Your task to perform on an android device: Search for usb-c on ebay, select the first entry, add it to the cart, then select checkout. Image 0: 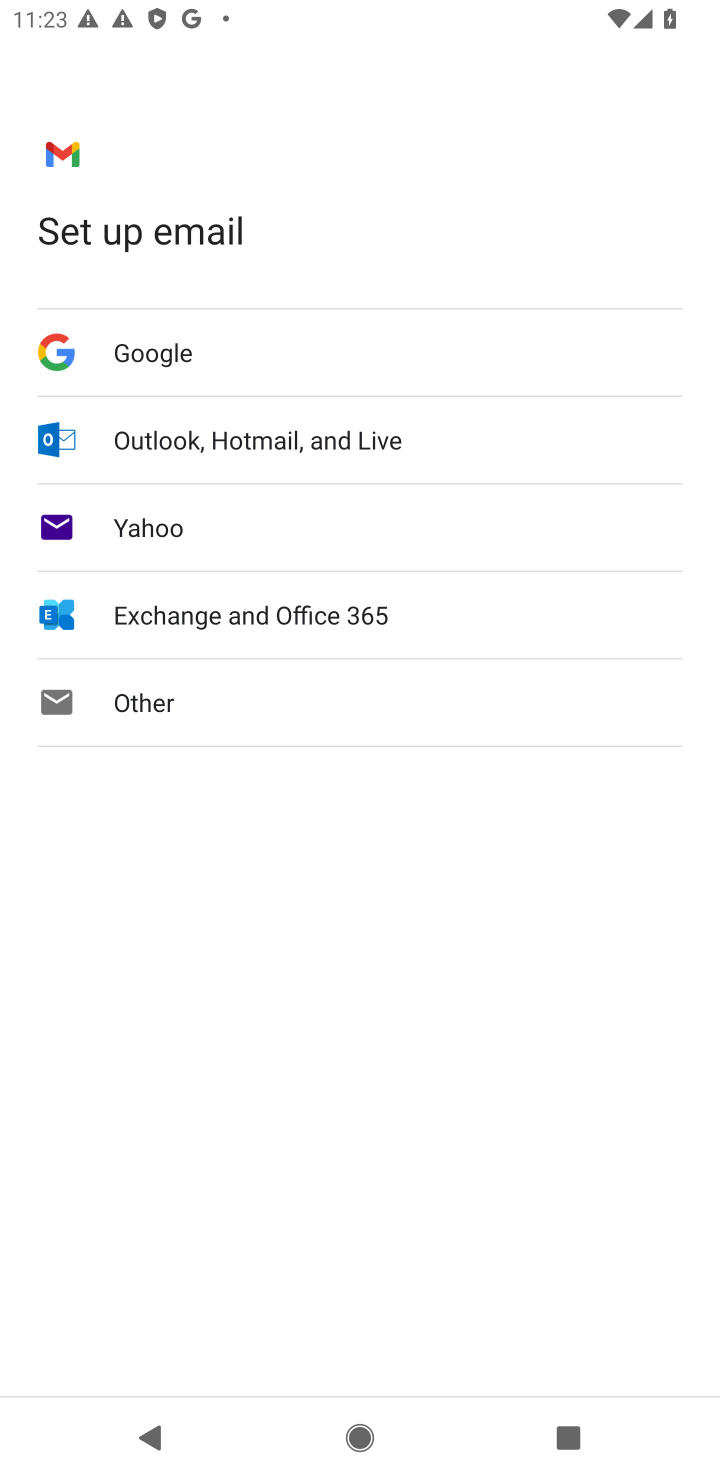
Step 0: press home button
Your task to perform on an android device: Search for usb-c on ebay, select the first entry, add it to the cart, then select checkout. Image 1: 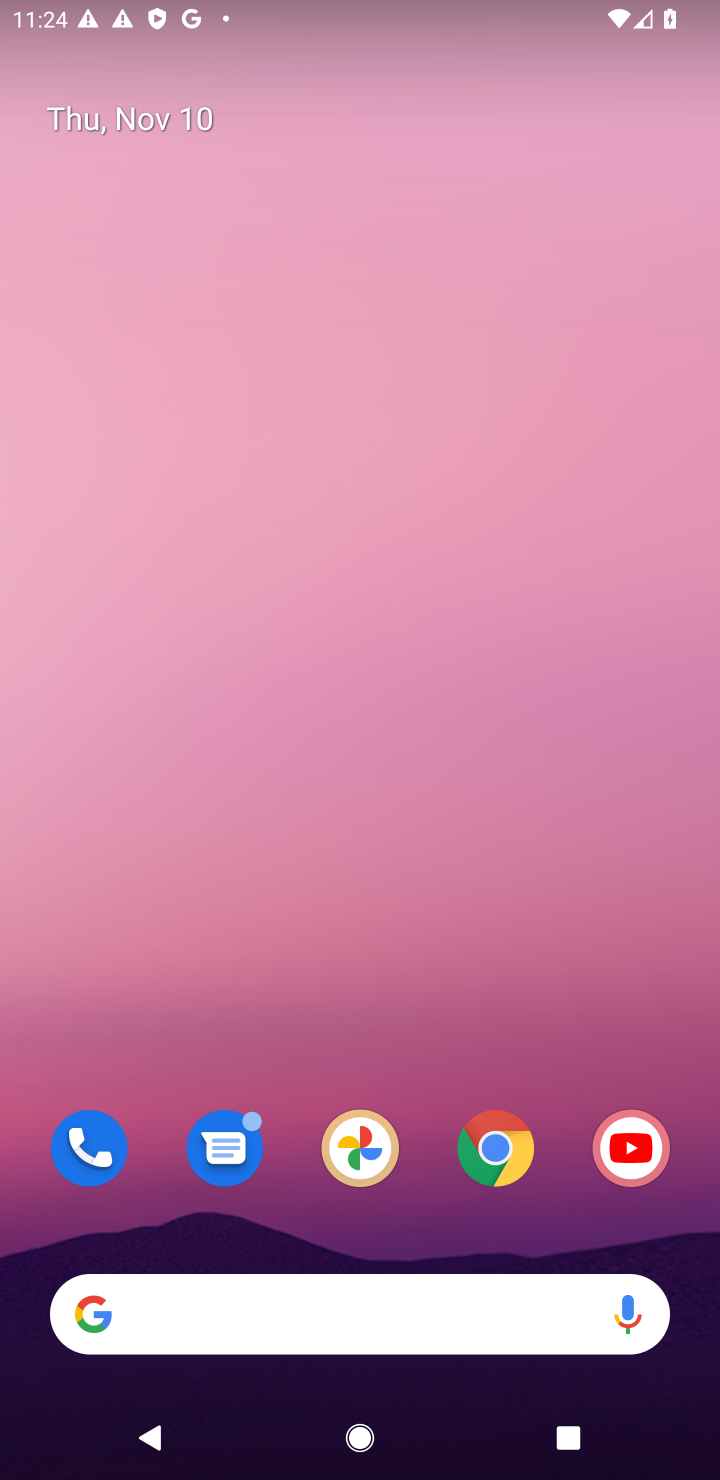
Step 1: click (510, 1148)
Your task to perform on an android device: Search for usb-c on ebay, select the first entry, add it to the cart, then select checkout. Image 2: 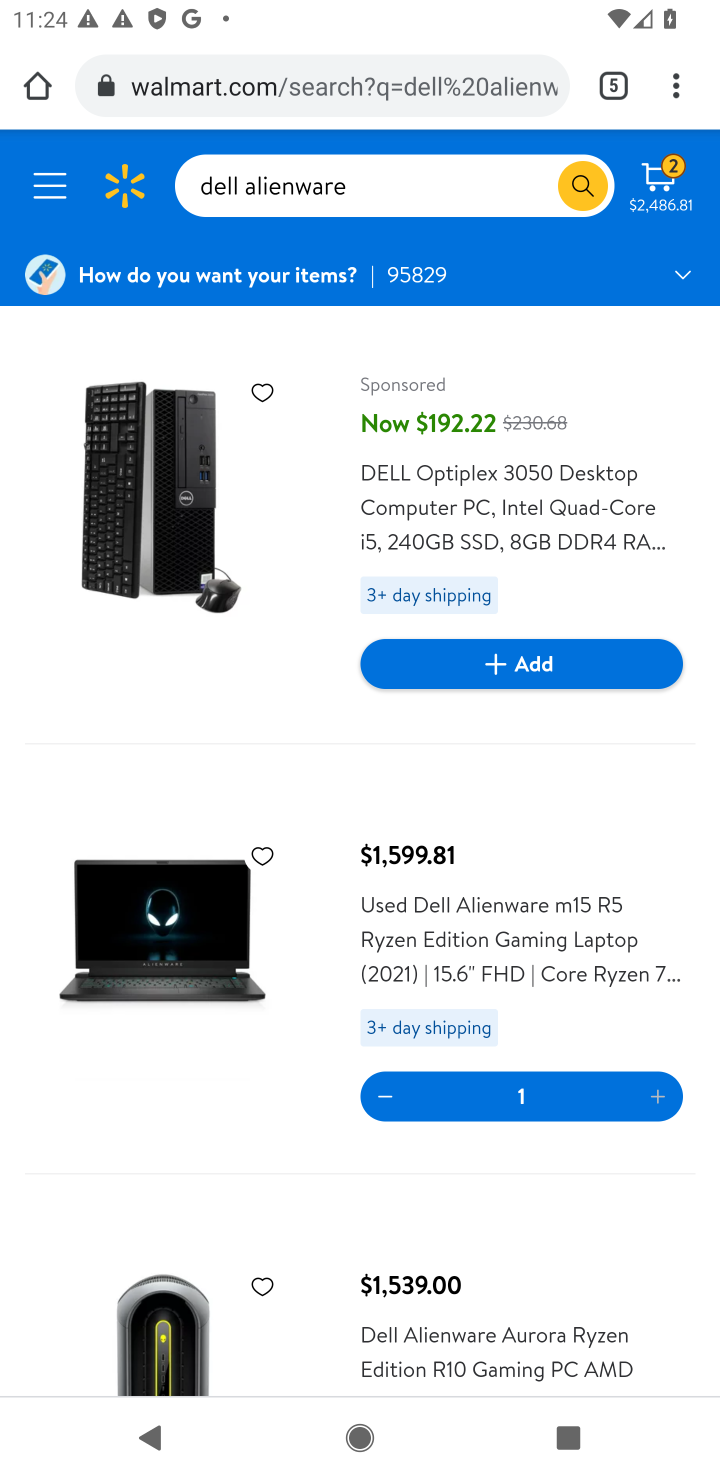
Step 2: click (614, 93)
Your task to perform on an android device: Search for usb-c on ebay, select the first entry, add it to the cart, then select checkout. Image 3: 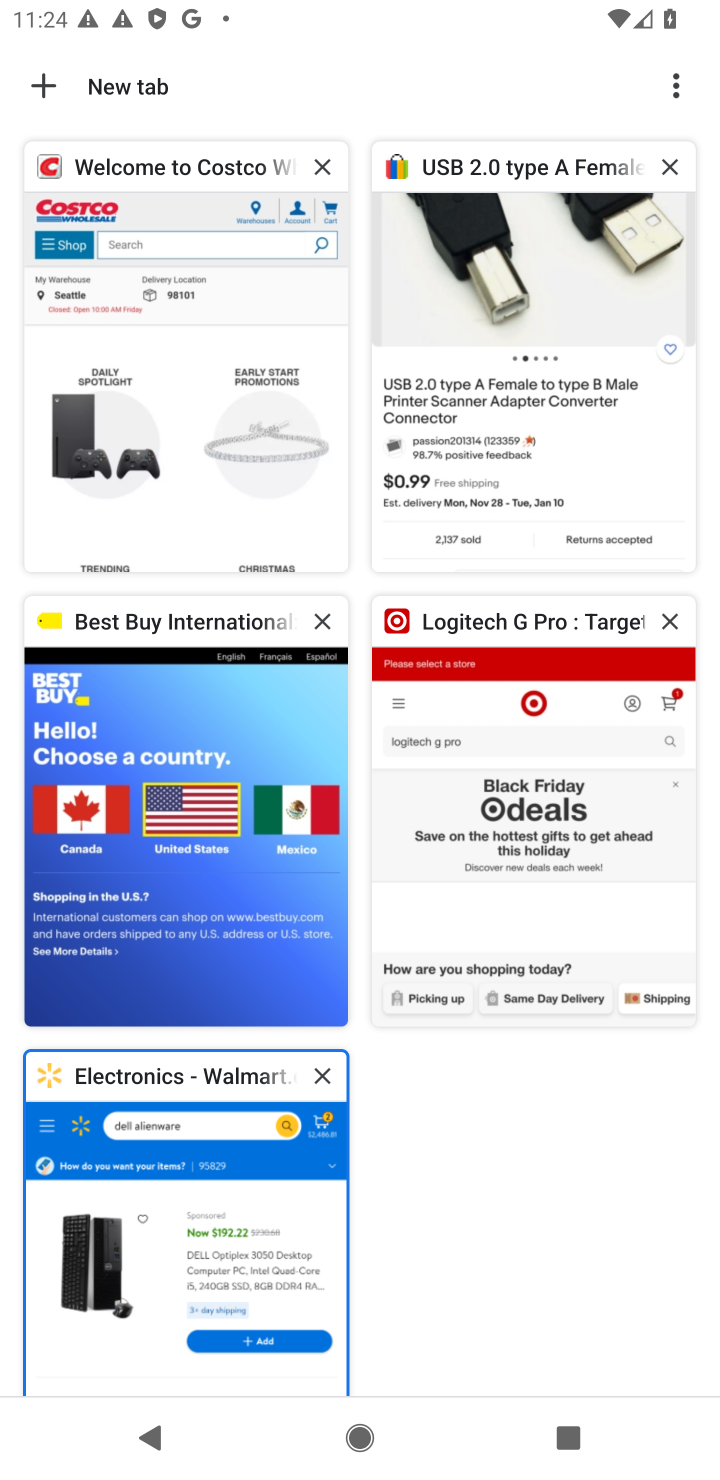
Step 3: click (612, 85)
Your task to perform on an android device: Search for usb-c on ebay, select the first entry, add it to the cart, then select checkout. Image 4: 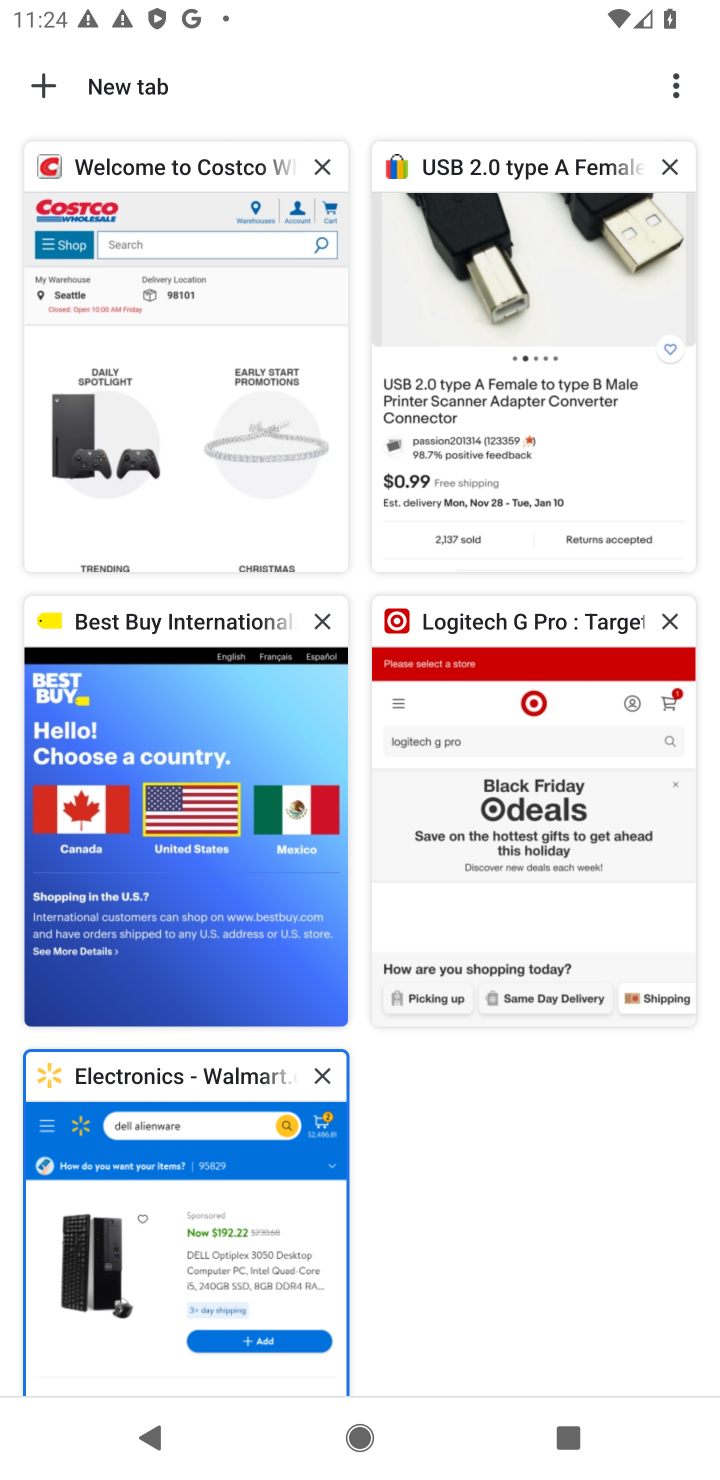
Step 4: click (510, 352)
Your task to perform on an android device: Search for usb-c on ebay, select the first entry, add it to the cart, then select checkout. Image 5: 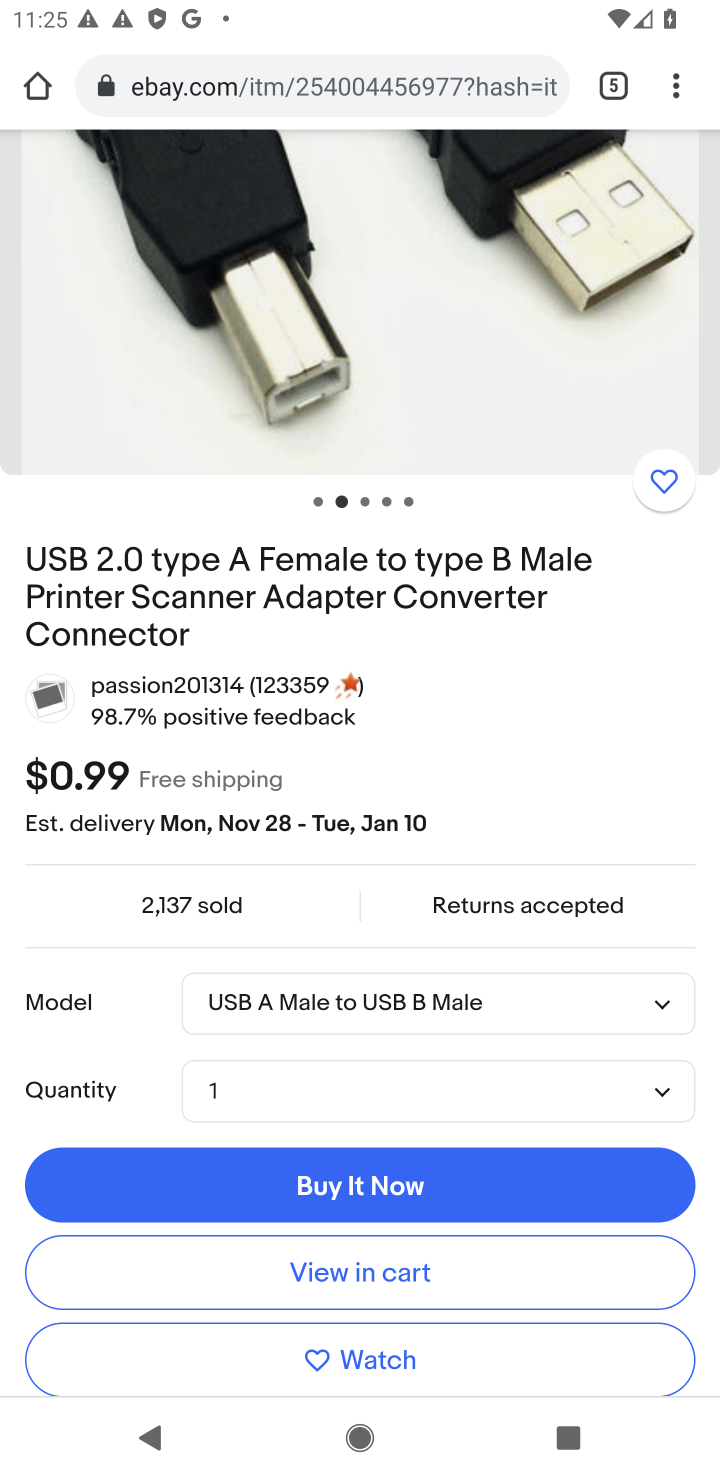
Step 5: drag from (493, 471) to (244, 1360)
Your task to perform on an android device: Search for usb-c on ebay, select the first entry, add it to the cart, then select checkout. Image 6: 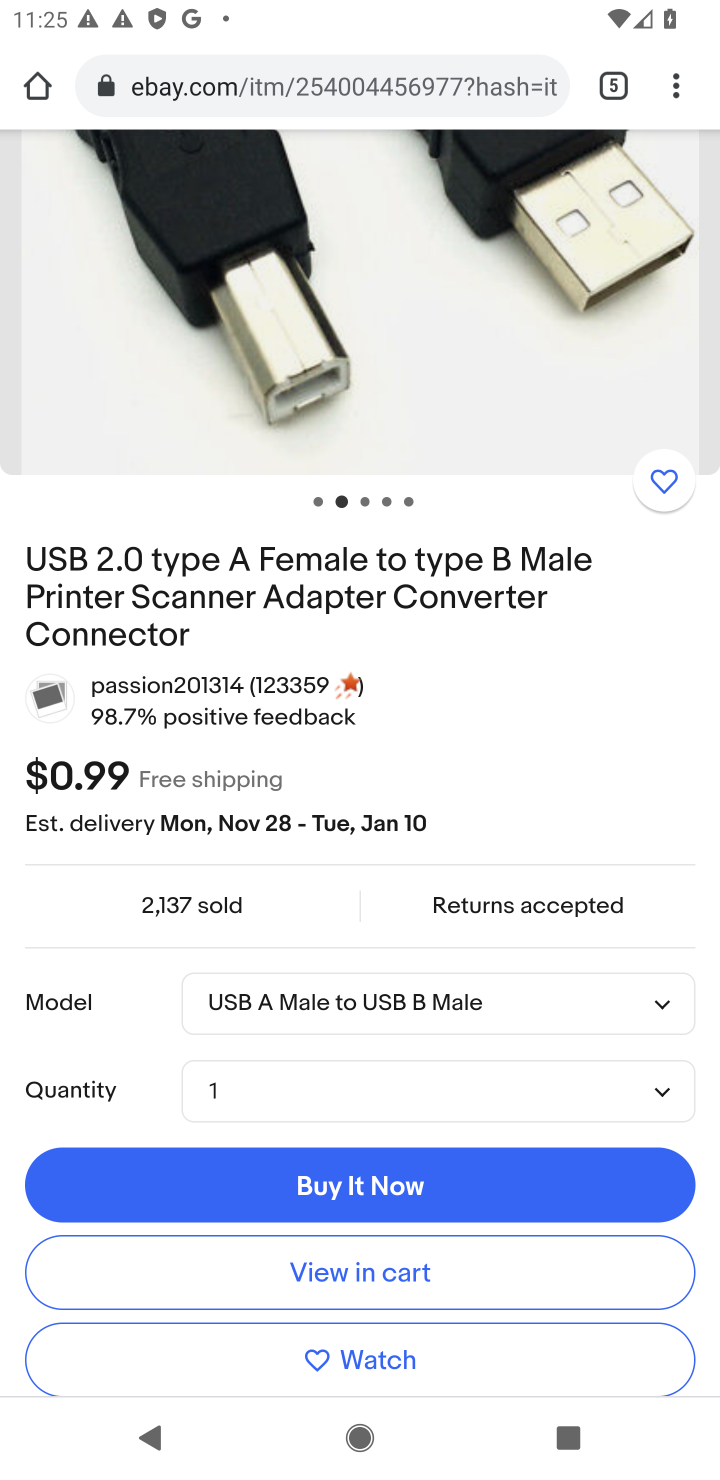
Step 6: drag from (515, 362) to (367, 1243)
Your task to perform on an android device: Search for usb-c on ebay, select the first entry, add it to the cart, then select checkout. Image 7: 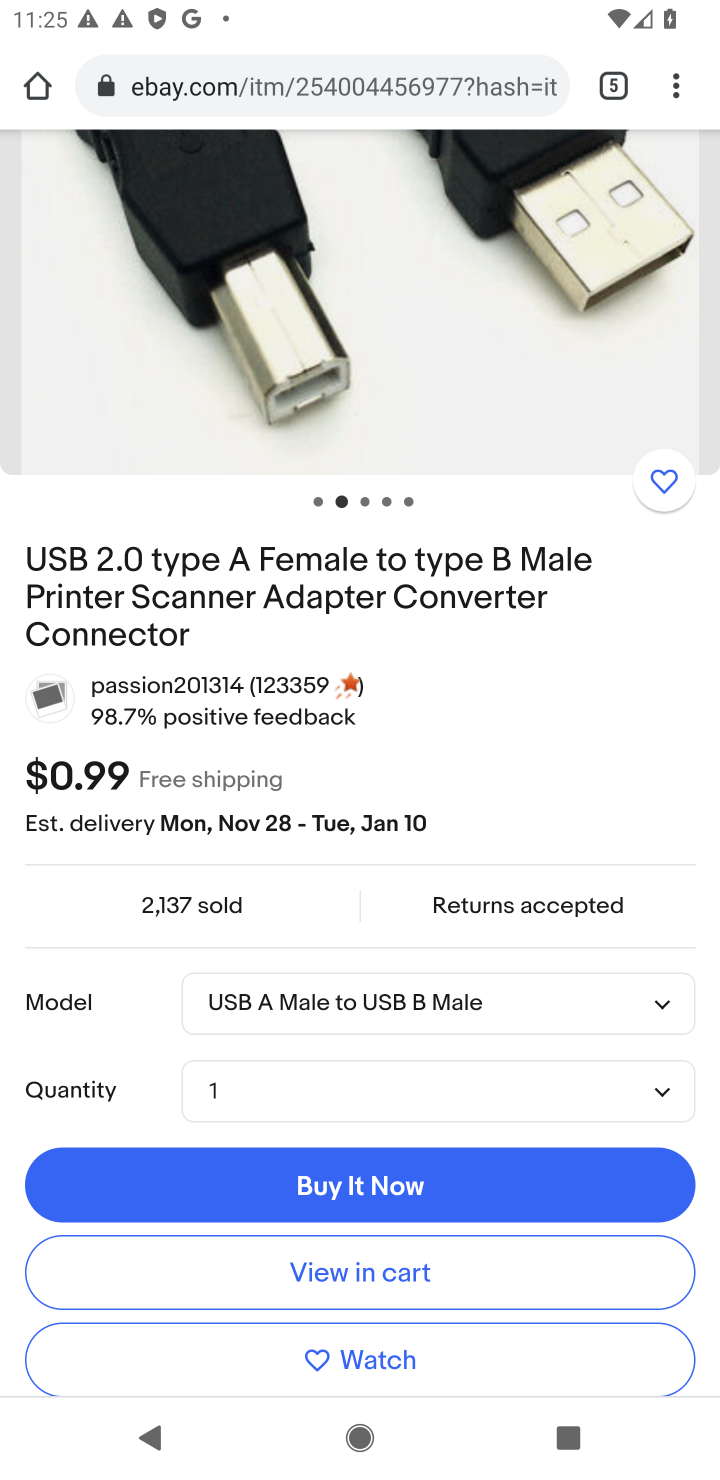
Step 7: drag from (574, 398) to (584, 1231)
Your task to perform on an android device: Search for usb-c on ebay, select the first entry, add it to the cart, then select checkout. Image 8: 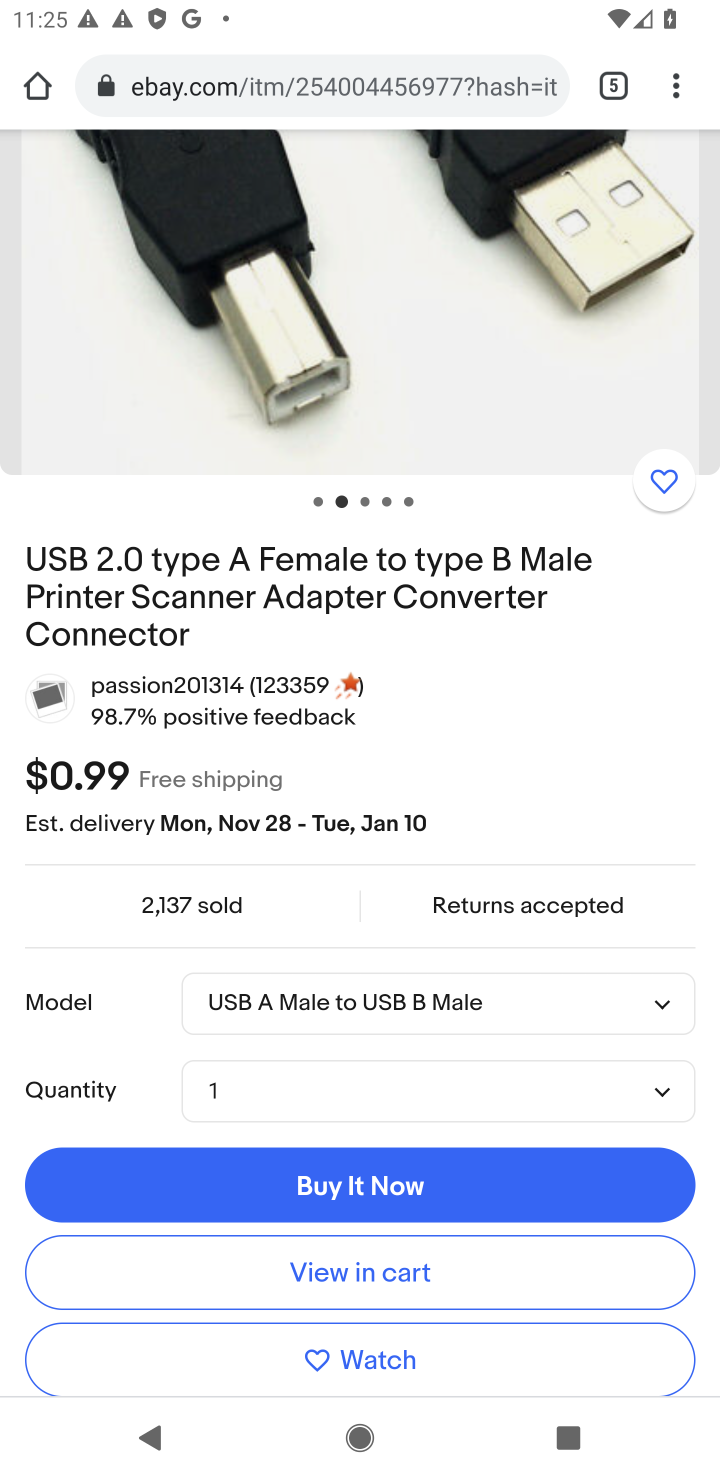
Step 8: drag from (386, 1367) to (446, 1456)
Your task to perform on an android device: Search for usb-c on ebay, select the first entry, add it to the cart, then select checkout. Image 9: 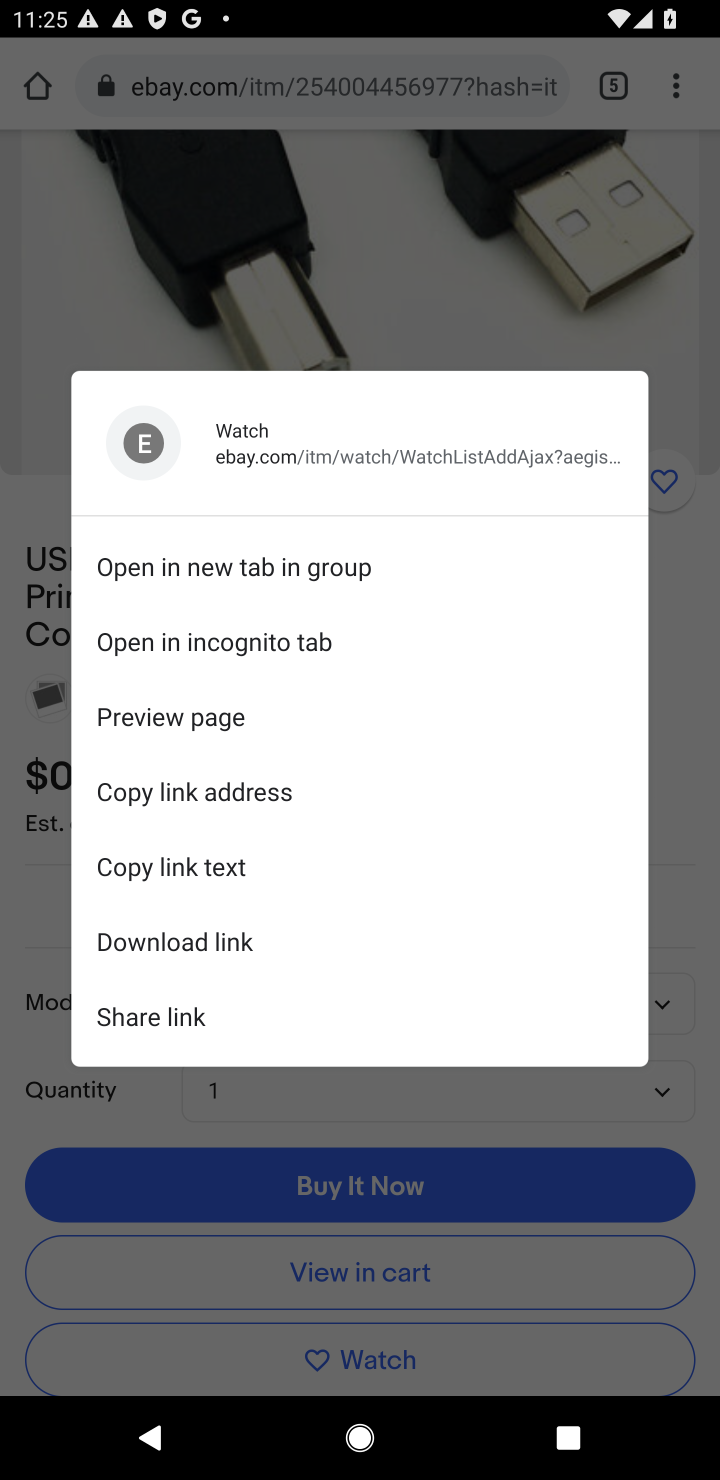
Step 9: click (673, 610)
Your task to perform on an android device: Search for usb-c on ebay, select the first entry, add it to the cart, then select checkout. Image 10: 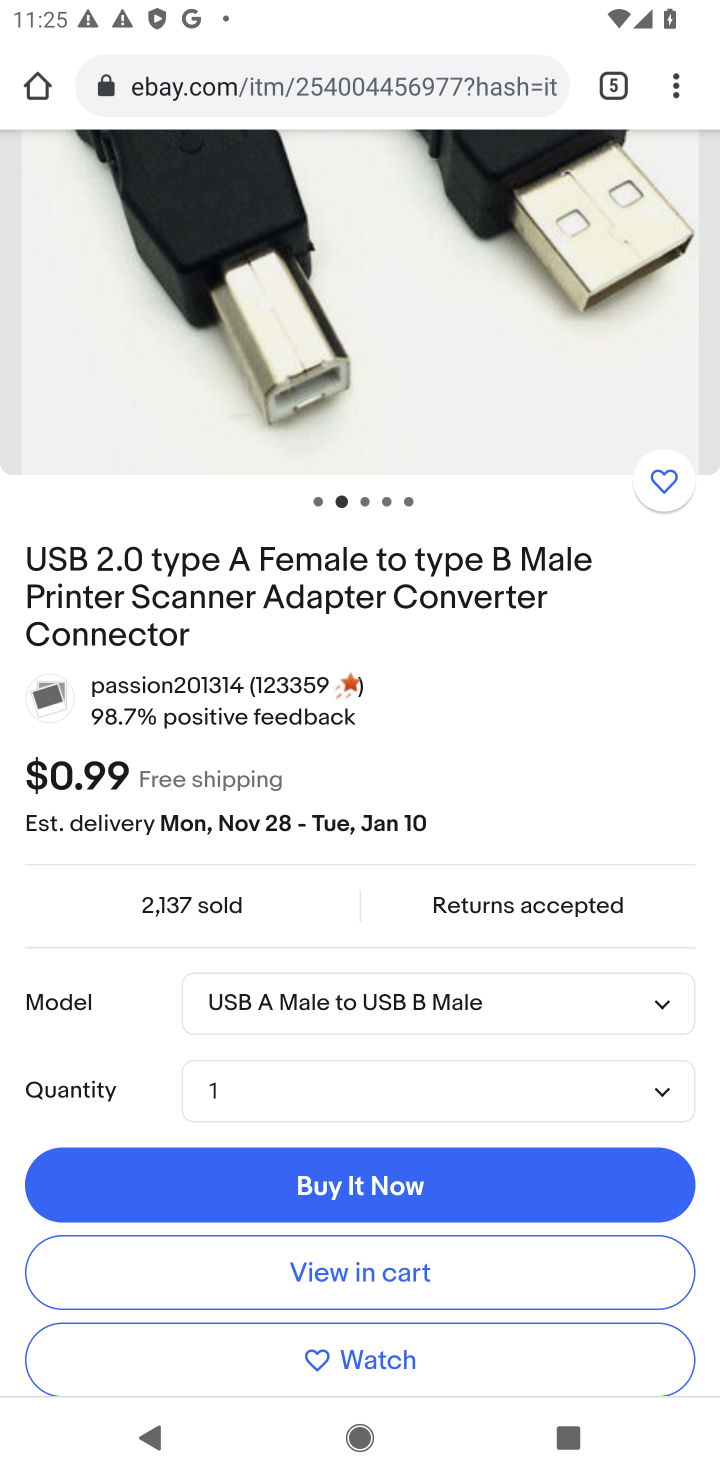
Step 10: drag from (550, 307) to (424, 1390)
Your task to perform on an android device: Search for usb-c on ebay, select the first entry, add it to the cart, then select checkout. Image 11: 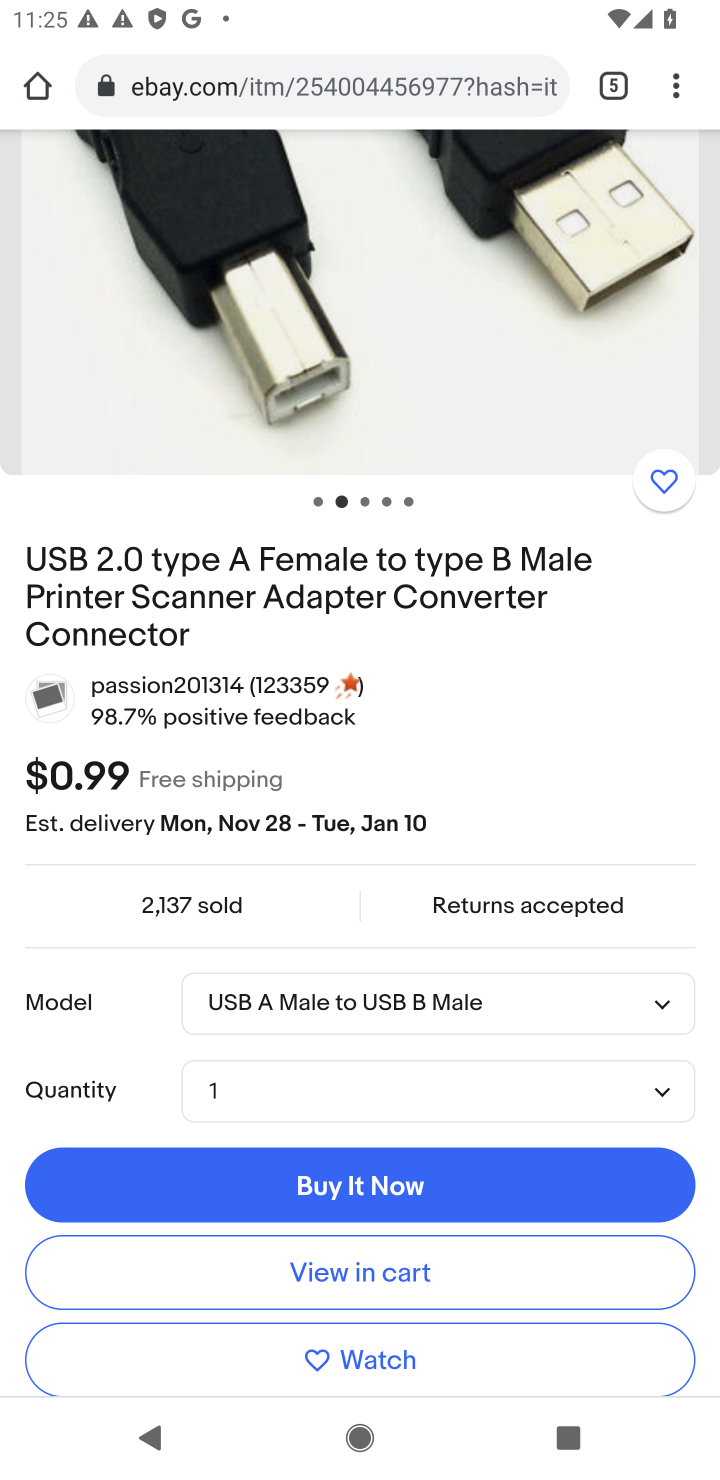
Step 11: drag from (543, 486) to (518, 985)
Your task to perform on an android device: Search for usb-c on ebay, select the first entry, add it to the cart, then select checkout. Image 12: 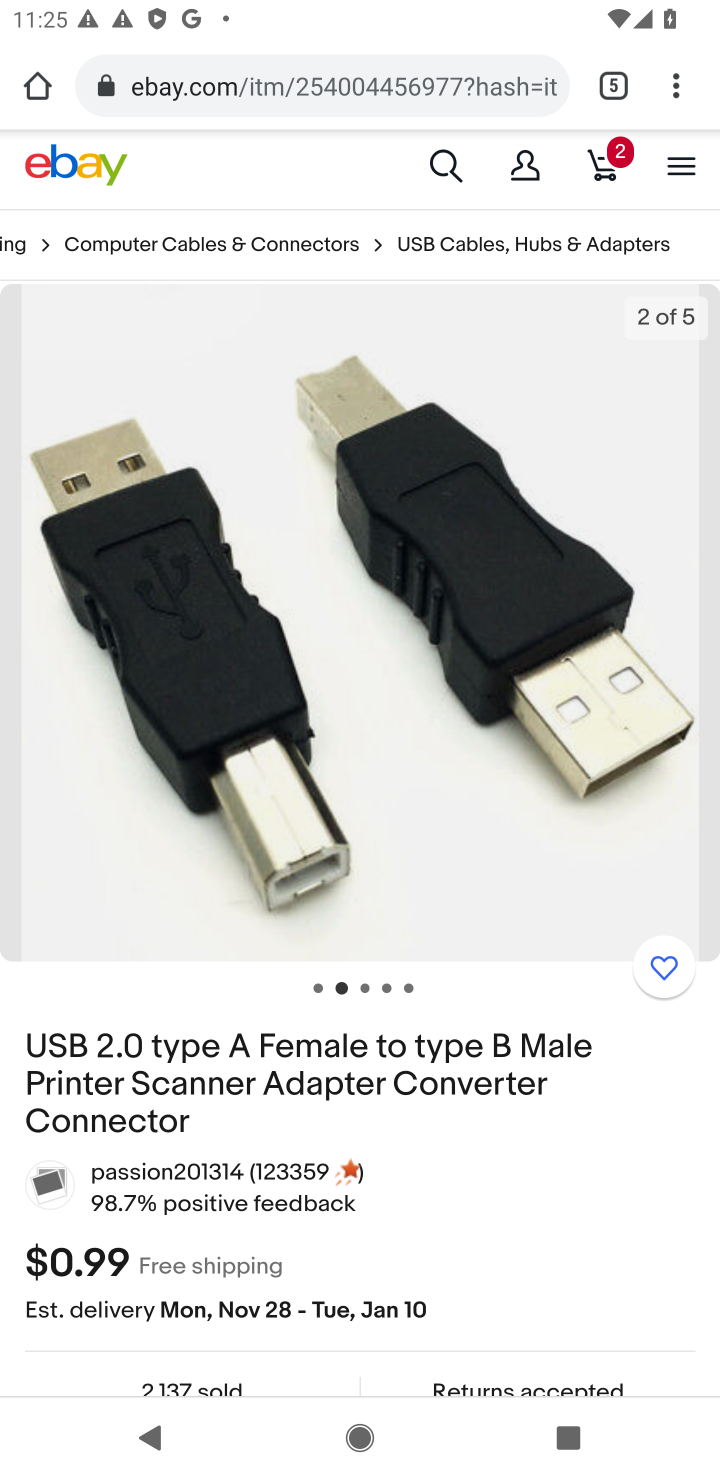
Step 12: click (444, 162)
Your task to perform on an android device: Search for usb-c on ebay, select the first entry, add it to the cart, then select checkout. Image 13: 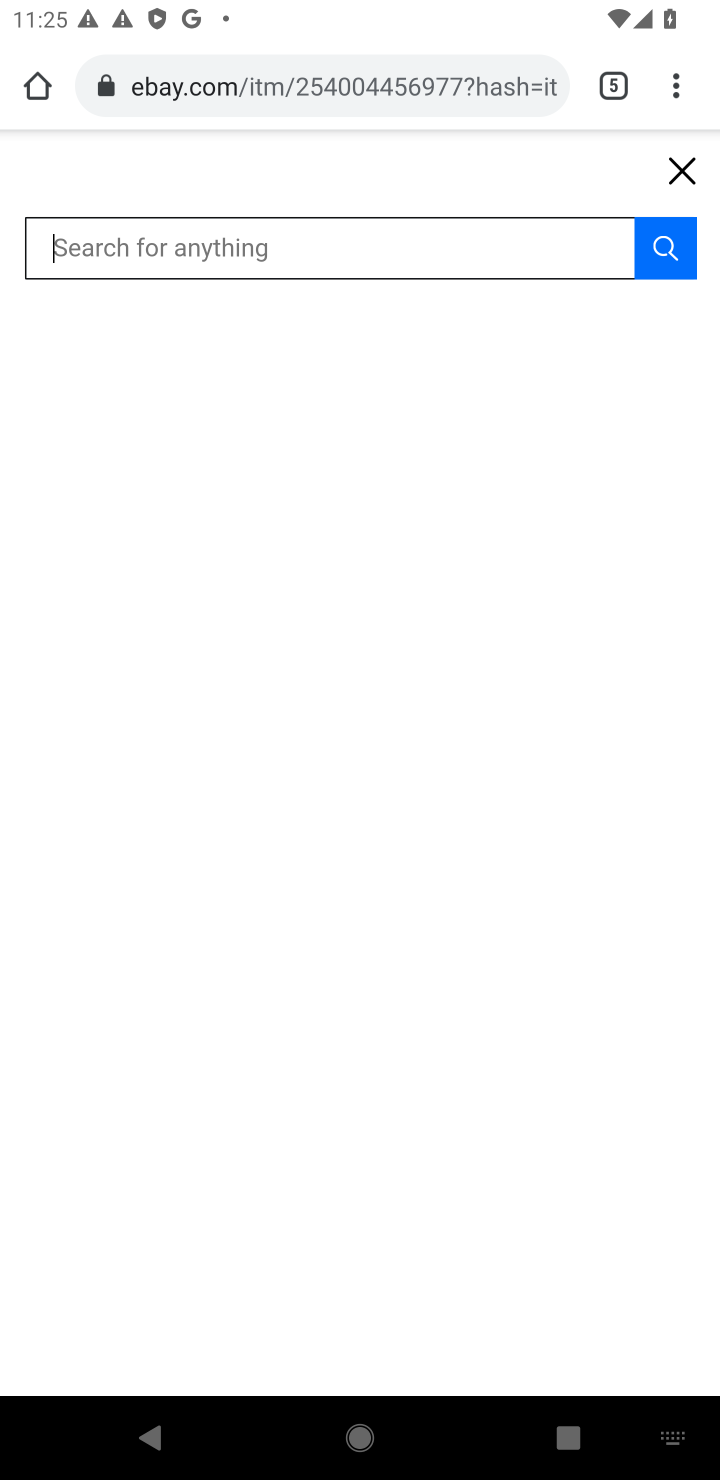
Step 13: type "usb-c"
Your task to perform on an android device: Search for usb-c on ebay, select the first entry, add it to the cart, then select checkout. Image 14: 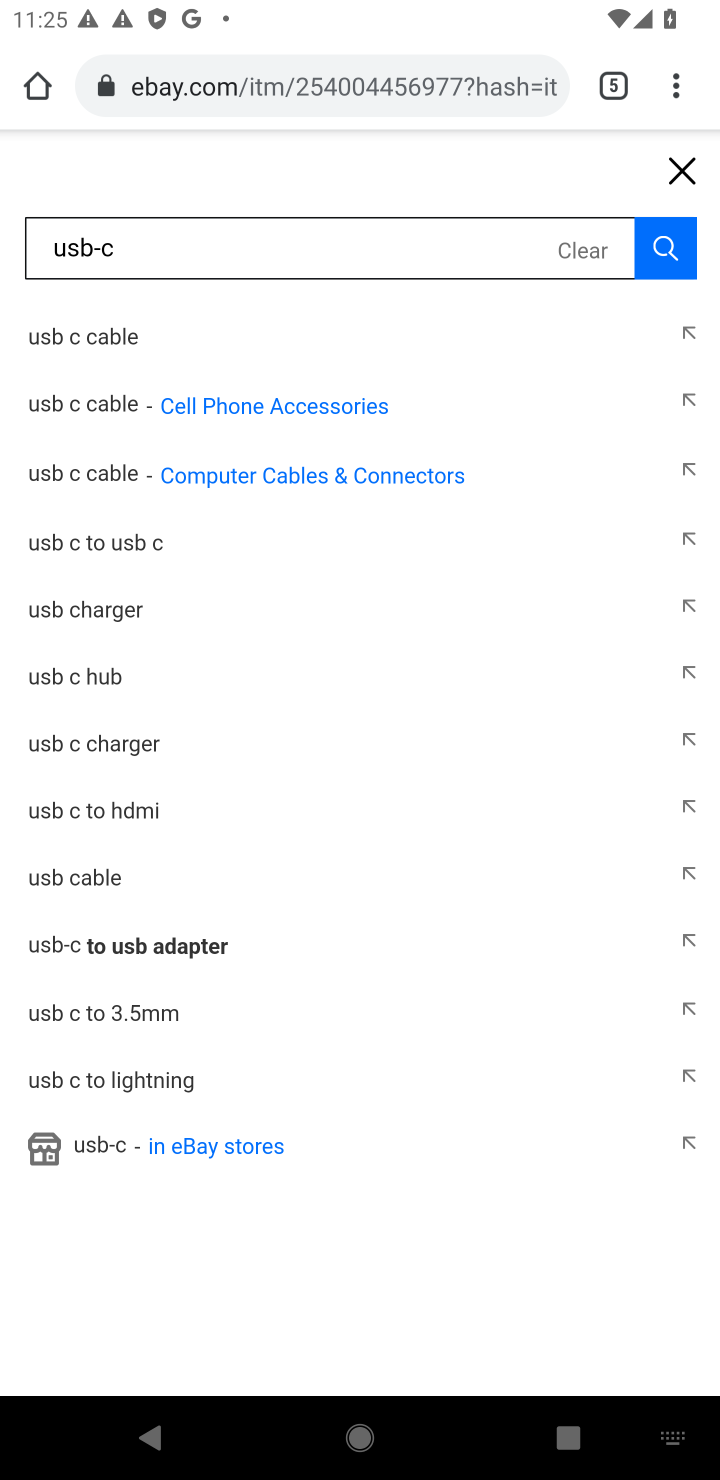
Step 14: click (98, 404)
Your task to perform on an android device: Search for usb-c on ebay, select the first entry, add it to the cart, then select checkout. Image 15: 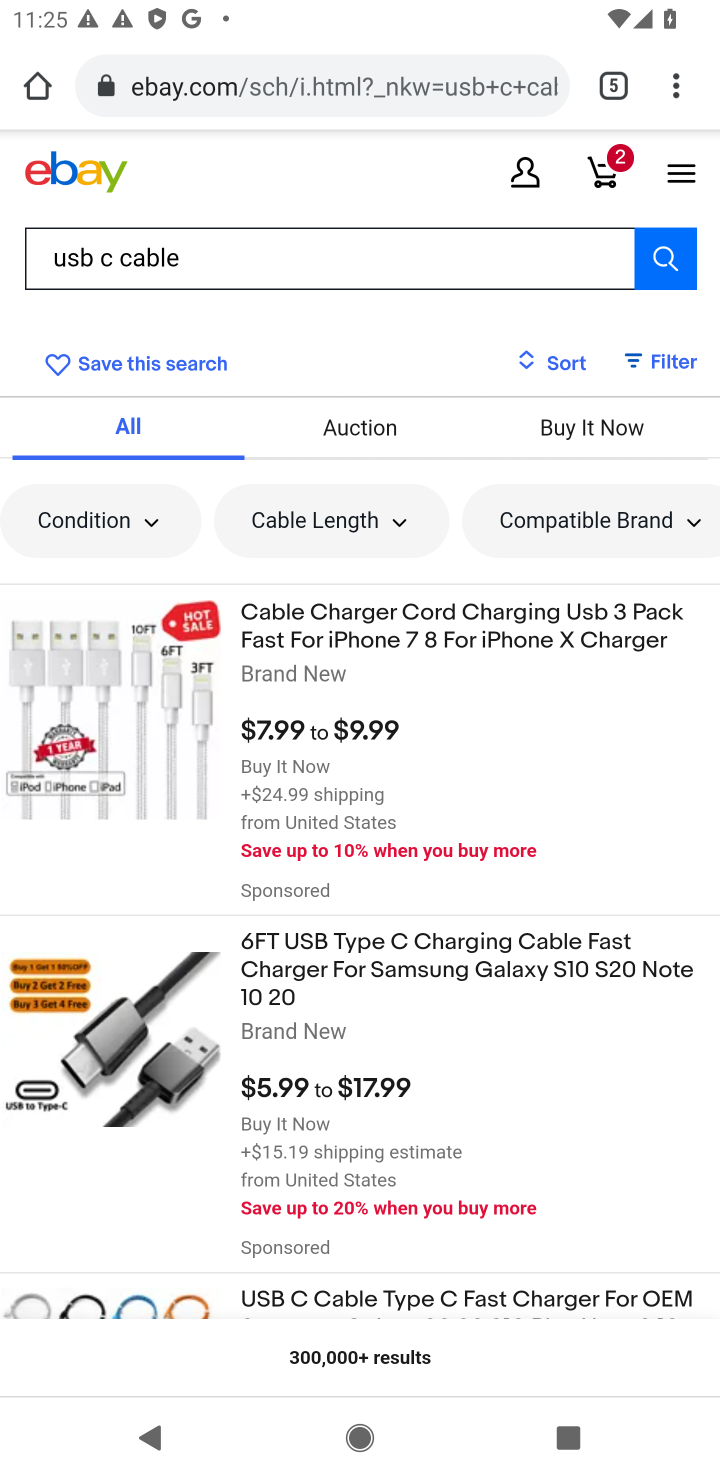
Step 15: click (325, 964)
Your task to perform on an android device: Search for usb-c on ebay, select the first entry, add it to the cart, then select checkout. Image 16: 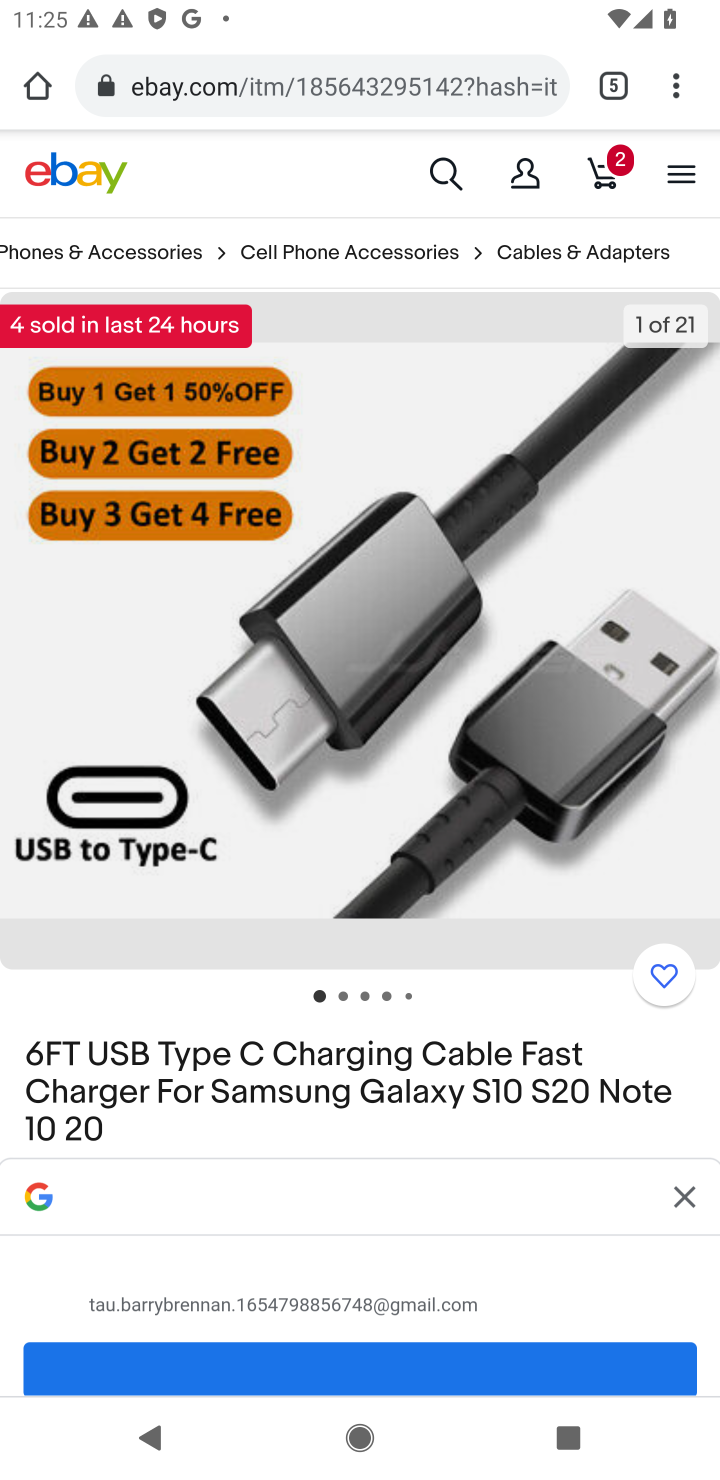
Step 16: drag from (497, 1162) to (456, 163)
Your task to perform on an android device: Search for usb-c on ebay, select the first entry, add it to the cart, then select checkout. Image 17: 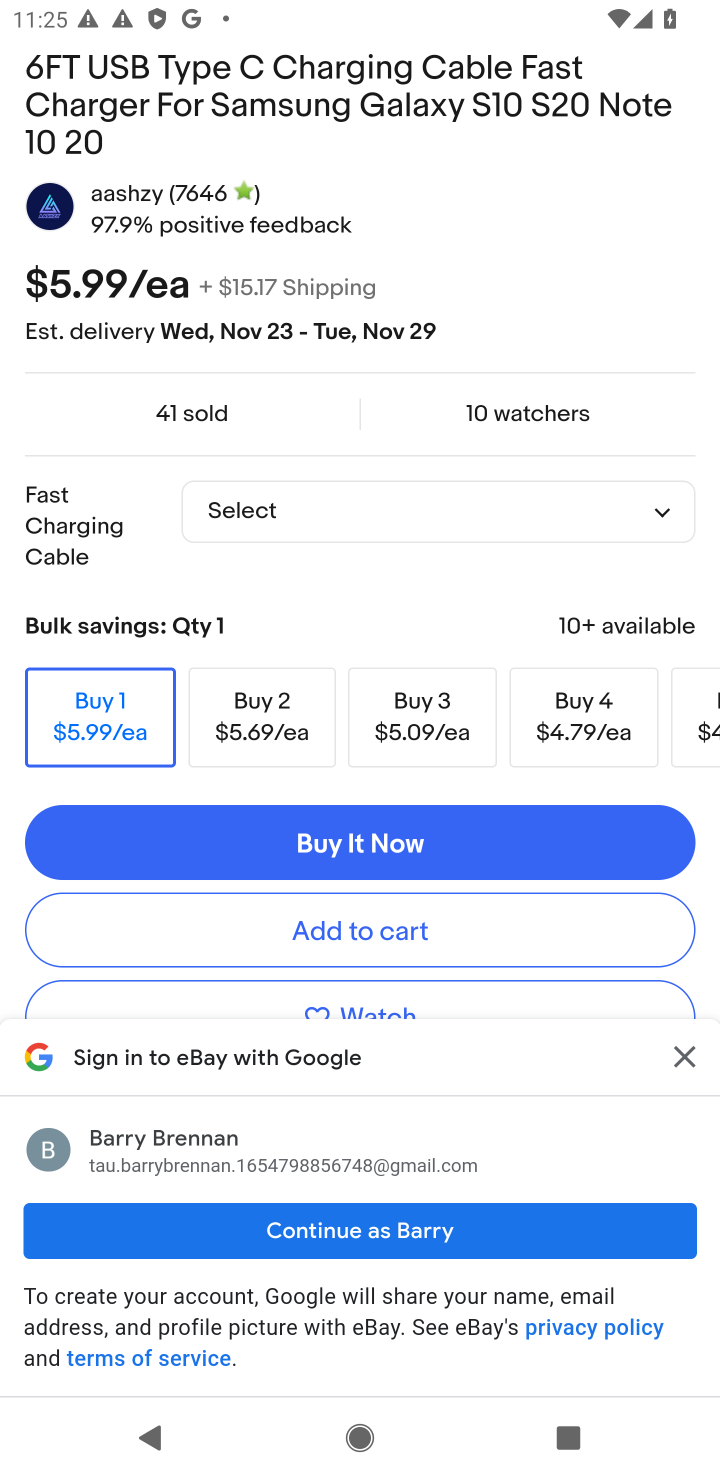
Step 17: click (395, 1249)
Your task to perform on an android device: Search for usb-c on ebay, select the first entry, add it to the cart, then select checkout. Image 18: 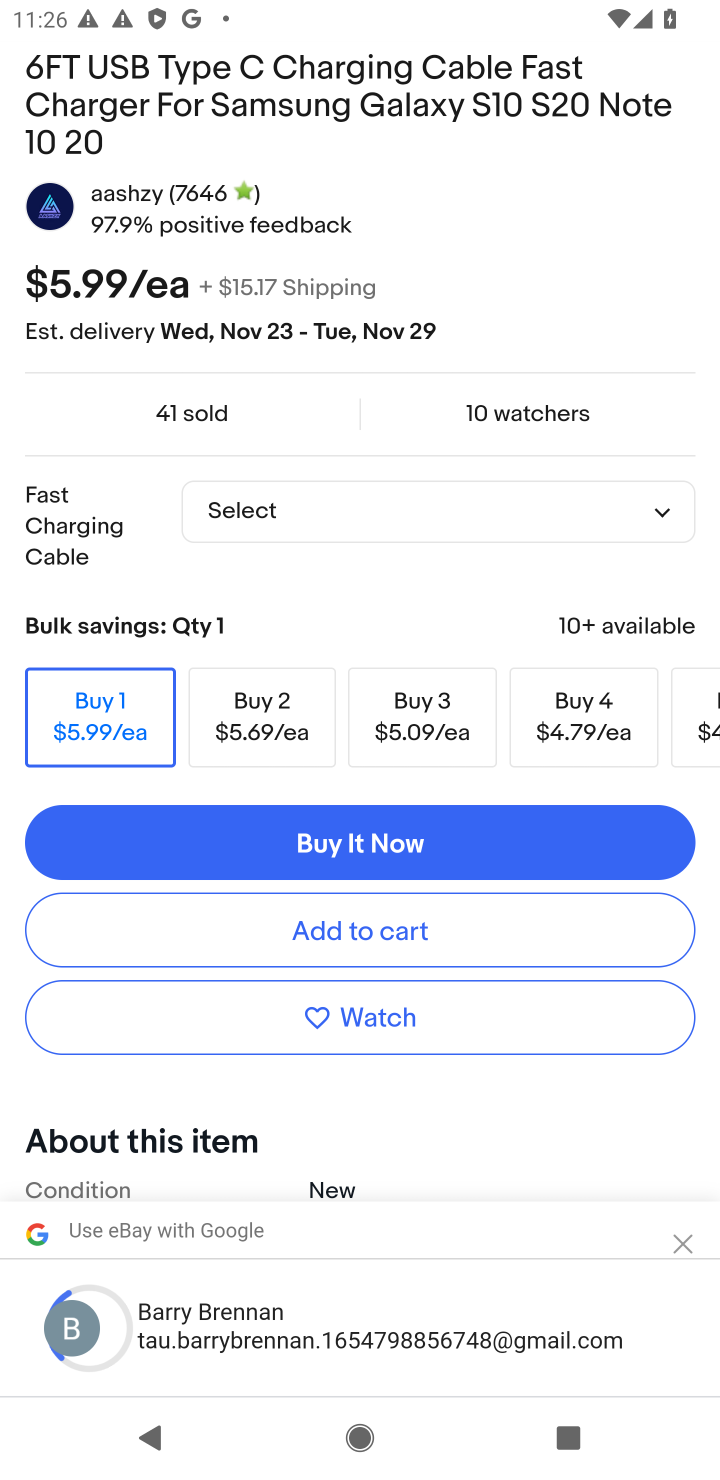
Step 18: click (399, 918)
Your task to perform on an android device: Search for usb-c on ebay, select the first entry, add it to the cart, then select checkout. Image 19: 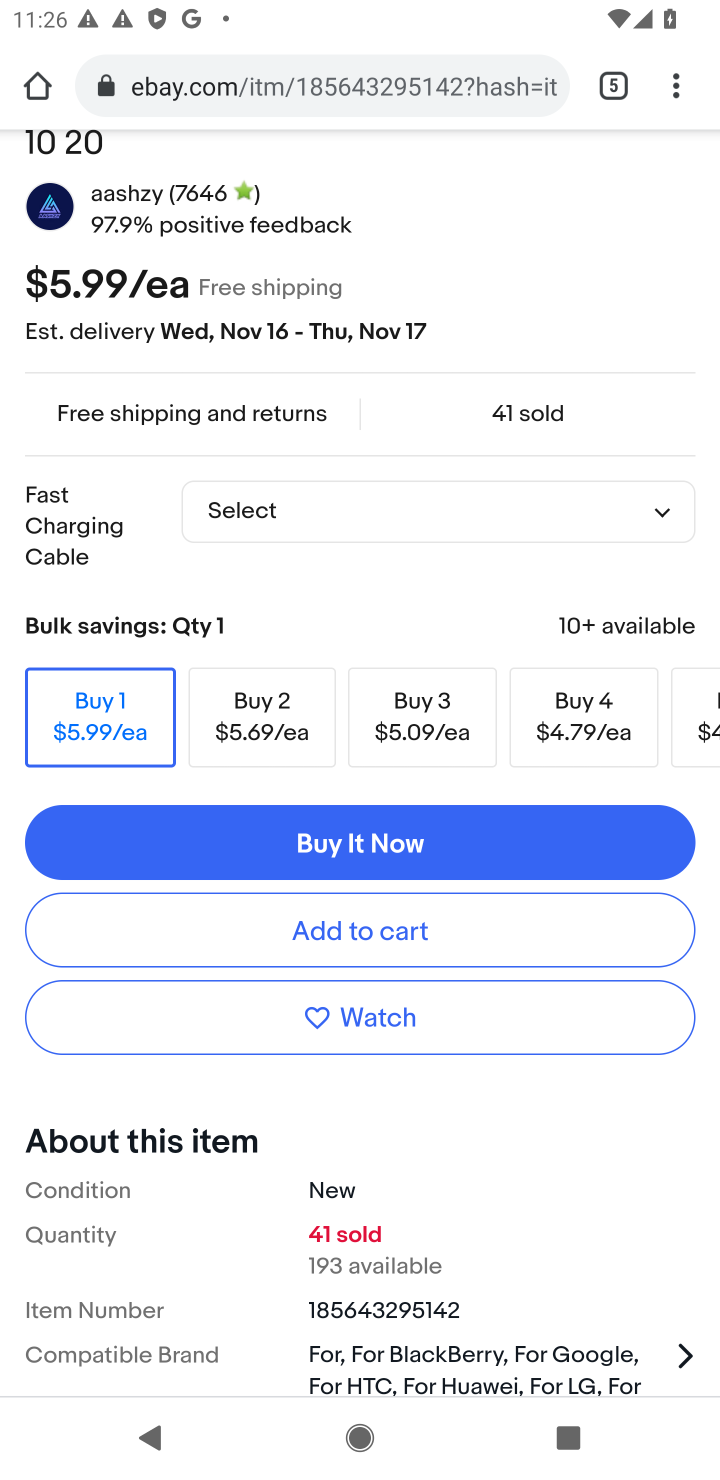
Step 19: click (379, 935)
Your task to perform on an android device: Search for usb-c on ebay, select the first entry, add it to the cart, then select checkout. Image 20: 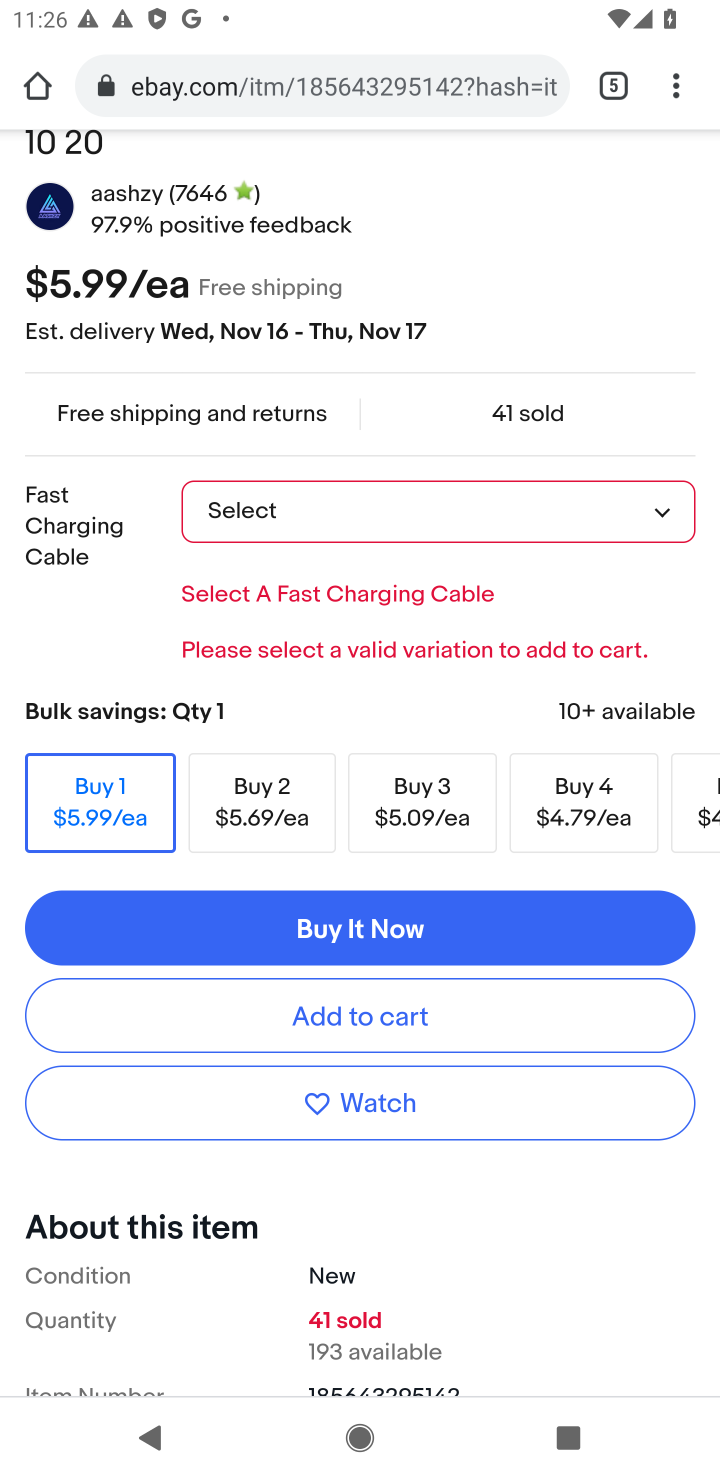
Step 20: click (662, 508)
Your task to perform on an android device: Search for usb-c on ebay, select the first entry, add it to the cart, then select checkout. Image 21: 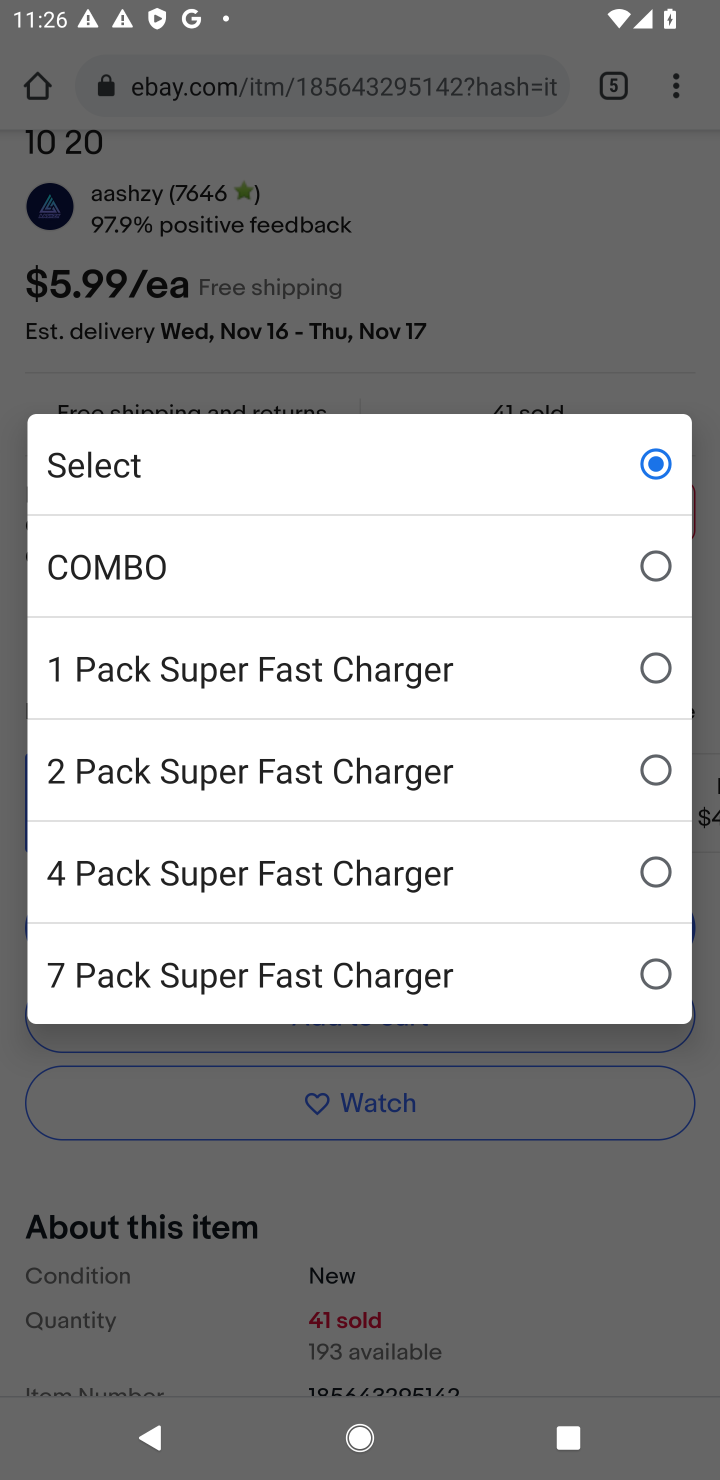
Step 21: click (412, 668)
Your task to perform on an android device: Search for usb-c on ebay, select the first entry, add it to the cart, then select checkout. Image 22: 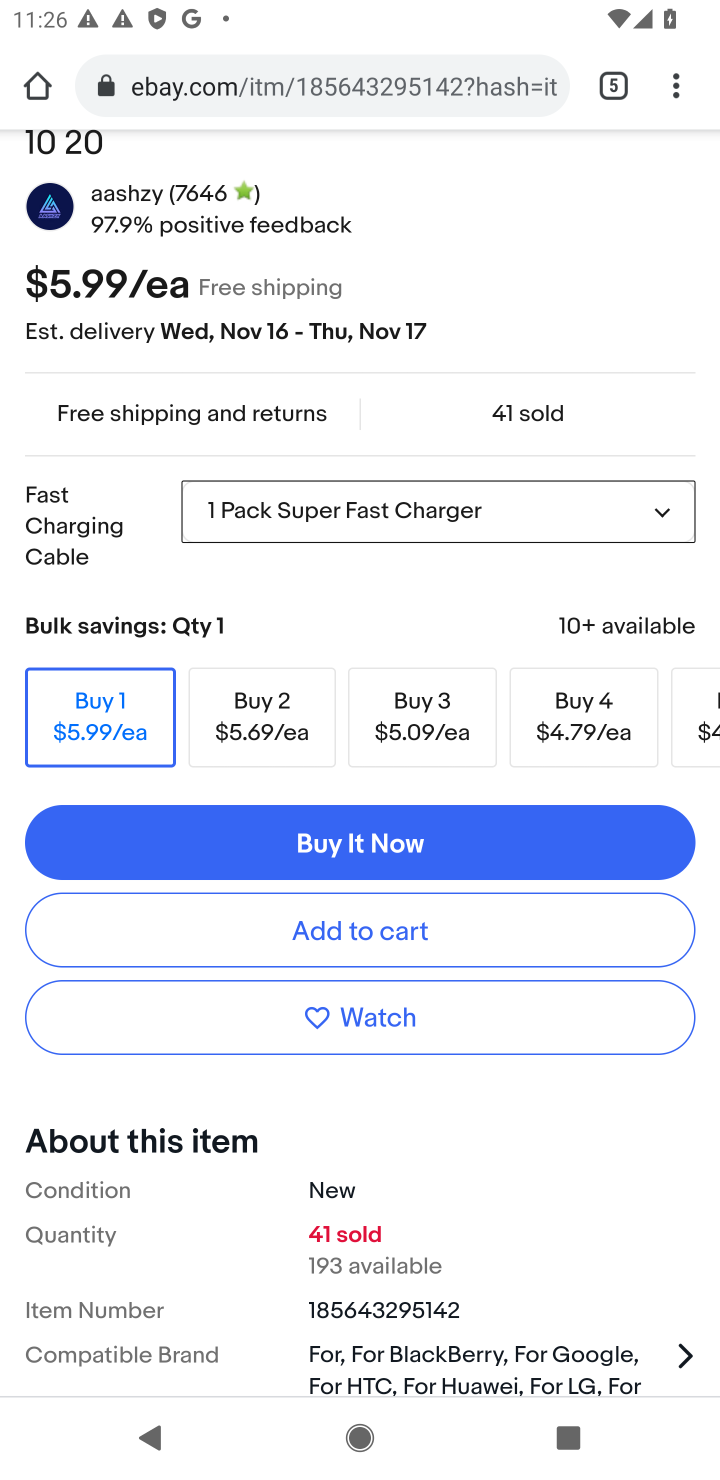
Step 22: click (404, 928)
Your task to perform on an android device: Search for usb-c on ebay, select the first entry, add it to the cart, then select checkout. Image 23: 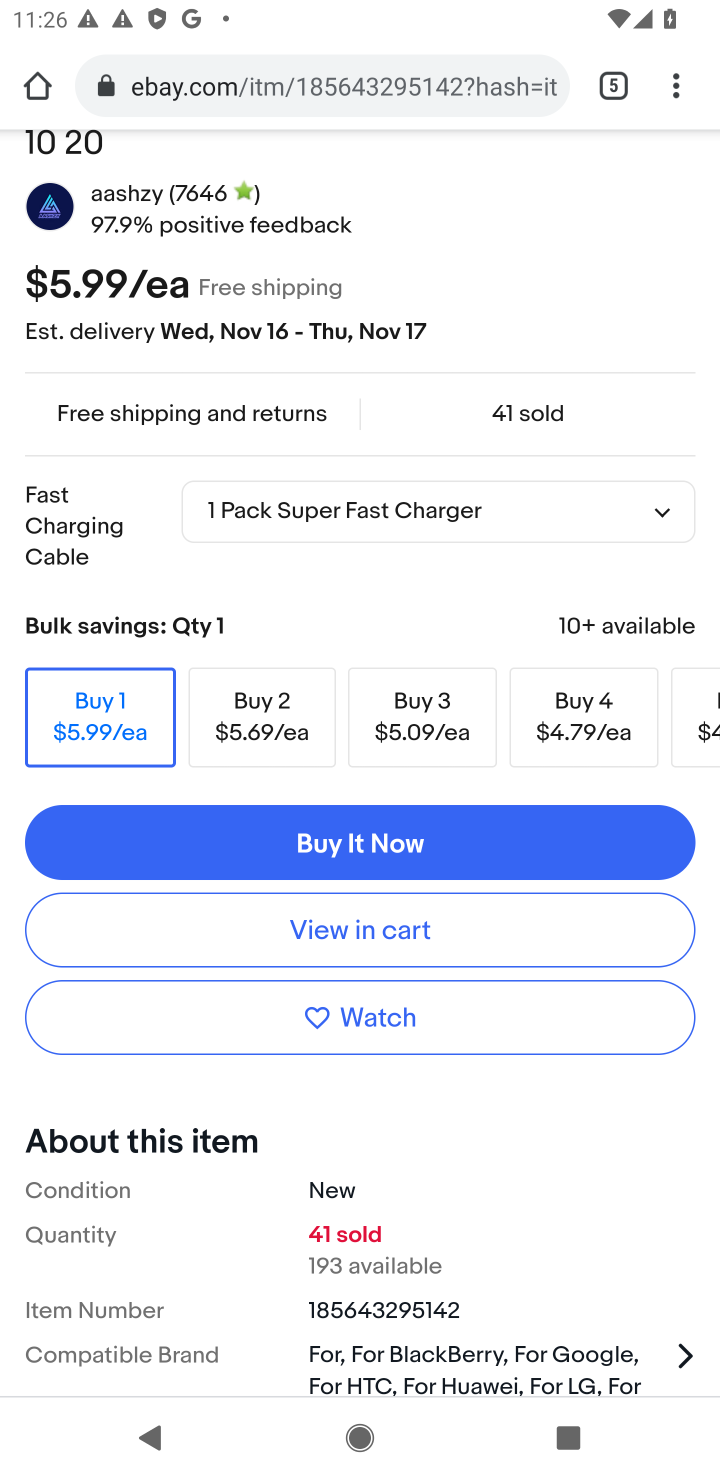
Step 23: click (404, 928)
Your task to perform on an android device: Search for usb-c on ebay, select the first entry, add it to the cart, then select checkout. Image 24: 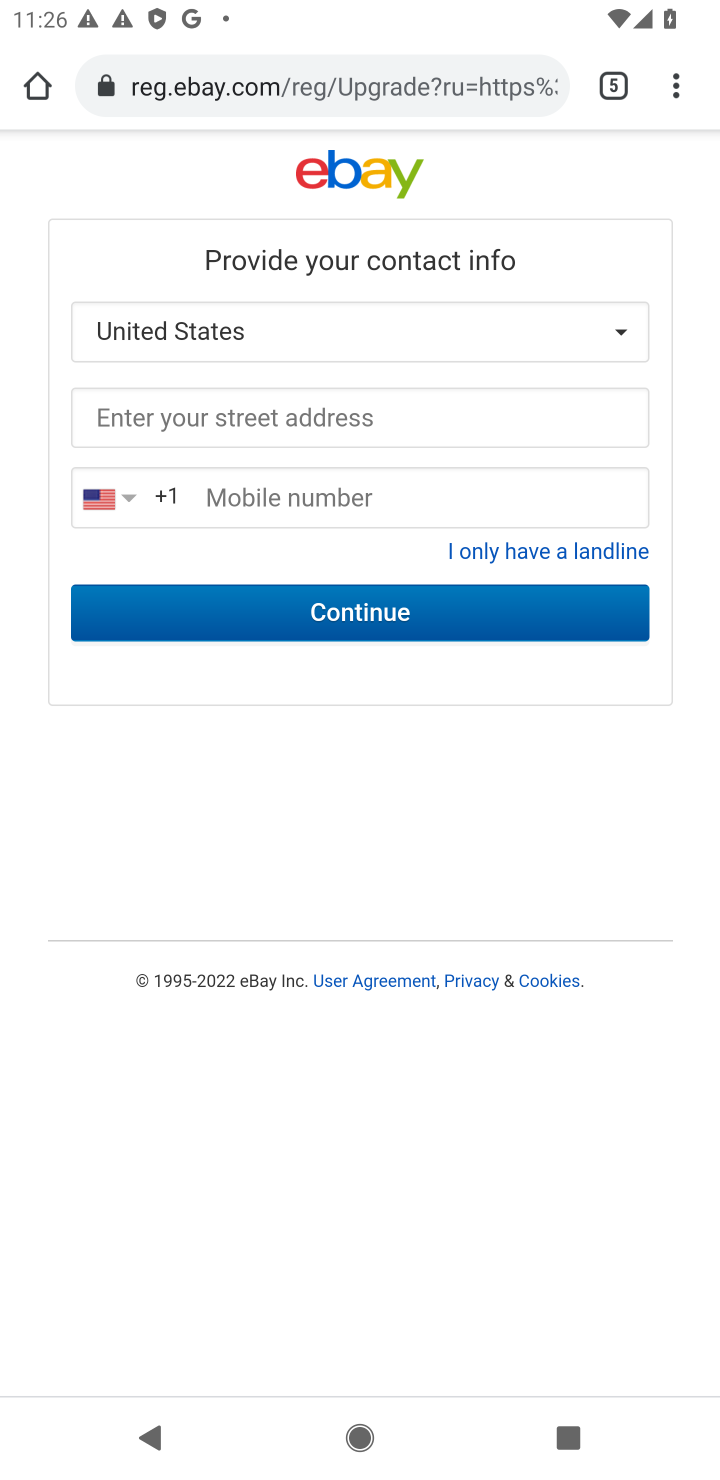
Step 24: task complete